Your task to perform on an android device: Open Google Maps Image 0: 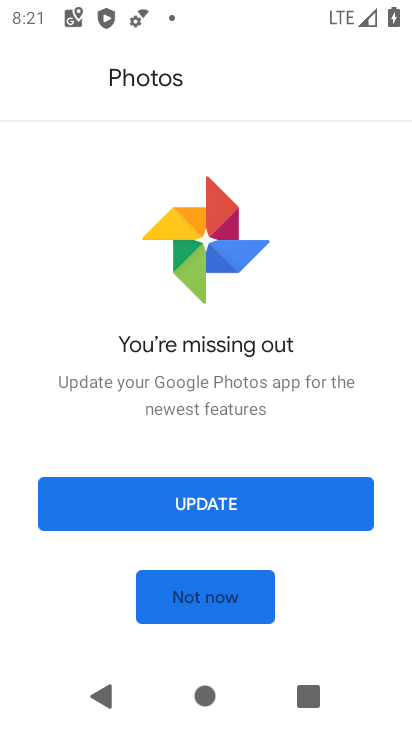
Step 0: click (181, 600)
Your task to perform on an android device: Open Google Maps Image 1: 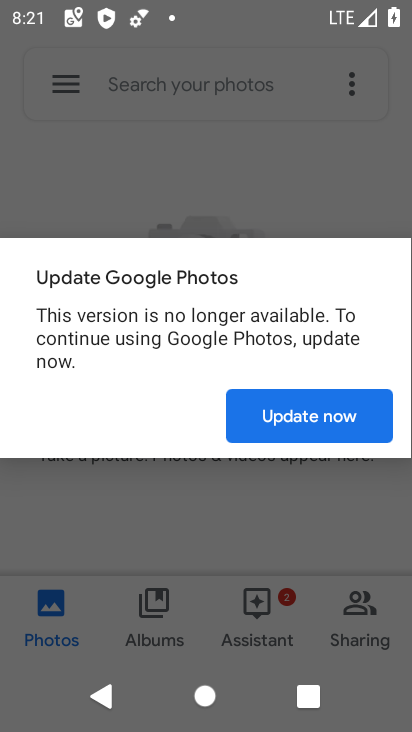
Step 1: press back button
Your task to perform on an android device: Open Google Maps Image 2: 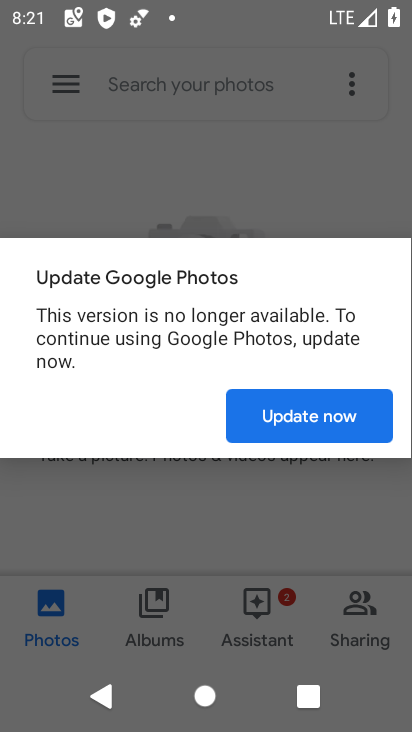
Step 2: press home button
Your task to perform on an android device: Open Google Maps Image 3: 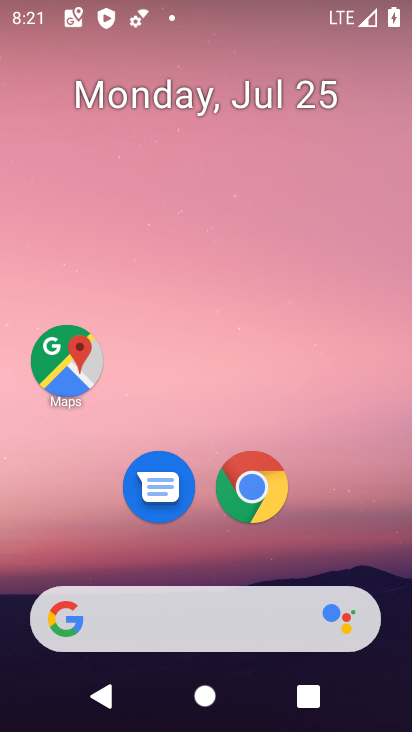
Step 3: click (72, 350)
Your task to perform on an android device: Open Google Maps Image 4: 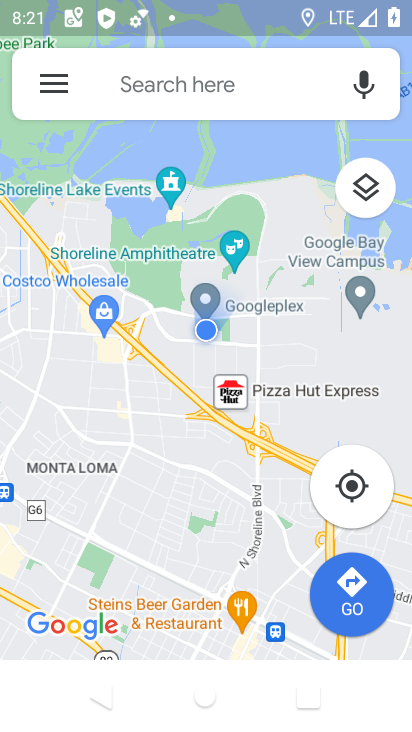
Step 4: task complete